Your task to perform on an android device: search for starred emails in the gmail app Image 0: 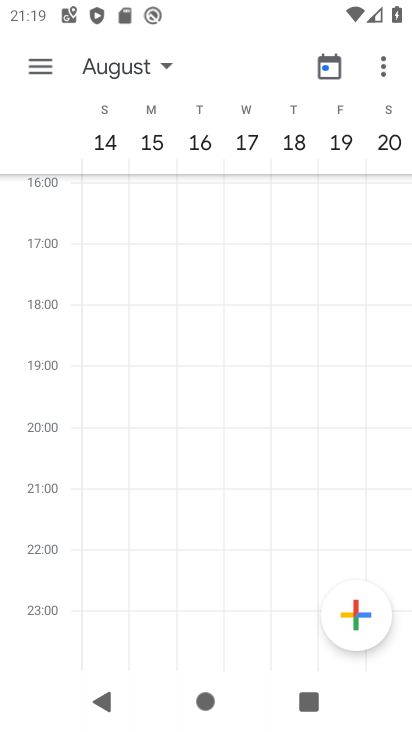
Step 0: press home button
Your task to perform on an android device: search for starred emails in the gmail app Image 1: 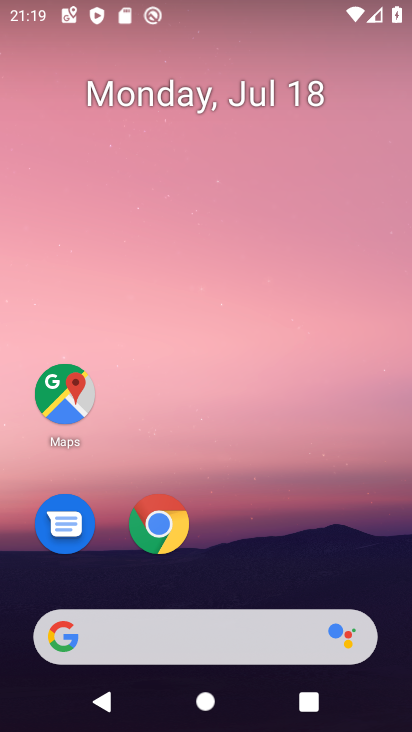
Step 1: drag from (271, 498) to (182, 59)
Your task to perform on an android device: search for starred emails in the gmail app Image 2: 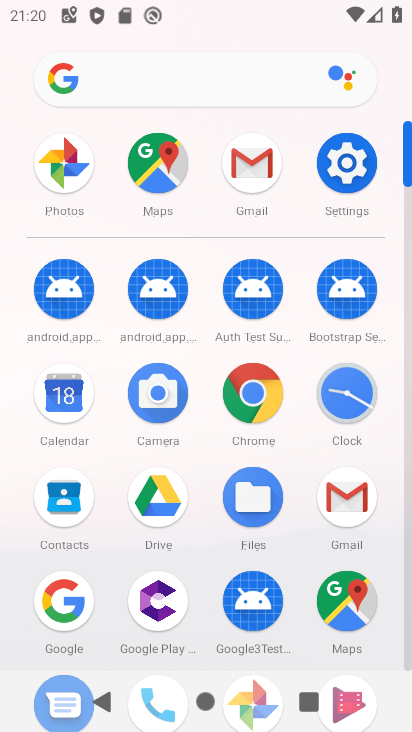
Step 2: click (270, 170)
Your task to perform on an android device: search for starred emails in the gmail app Image 3: 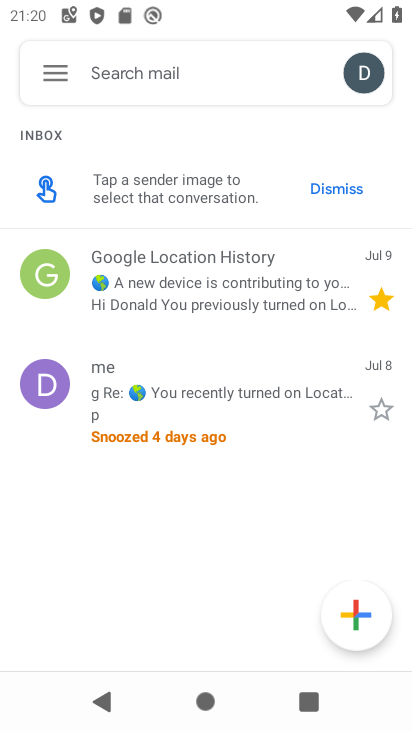
Step 3: click (56, 75)
Your task to perform on an android device: search for starred emails in the gmail app Image 4: 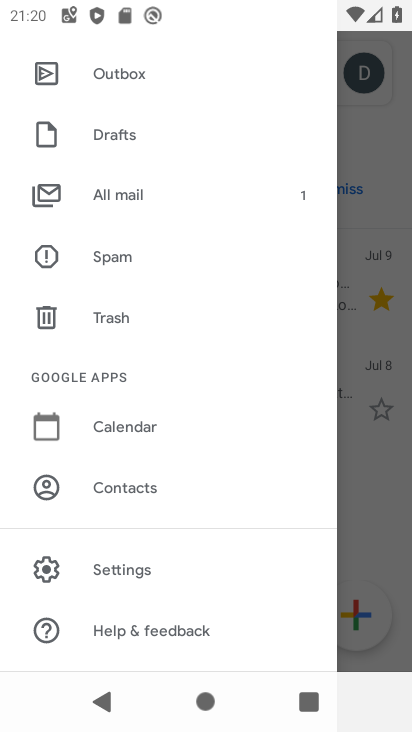
Step 4: drag from (174, 172) to (252, 589)
Your task to perform on an android device: search for starred emails in the gmail app Image 5: 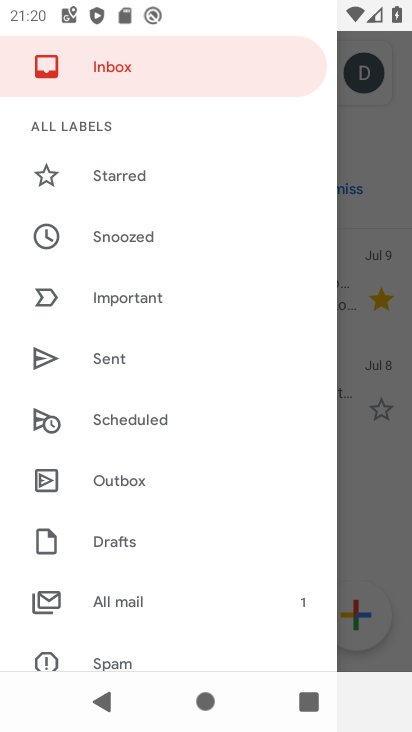
Step 5: click (131, 169)
Your task to perform on an android device: search for starred emails in the gmail app Image 6: 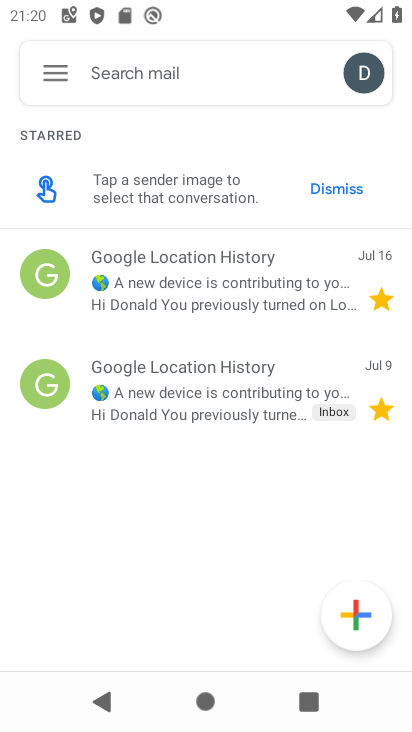
Step 6: task complete